Your task to perform on an android device: turn on showing notifications on the lock screen Image 0: 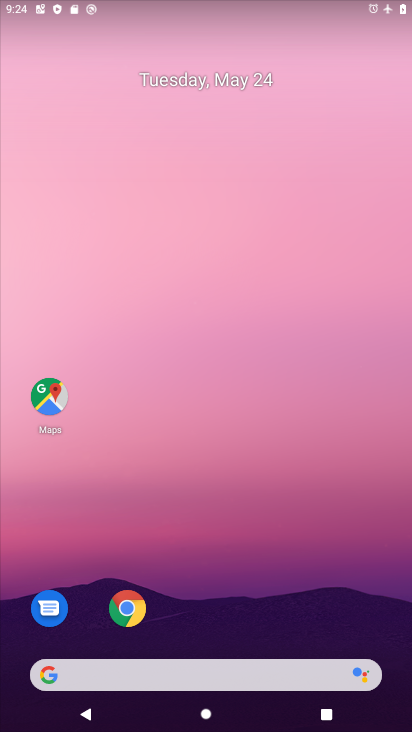
Step 0: drag from (202, 640) to (265, 190)
Your task to perform on an android device: turn on showing notifications on the lock screen Image 1: 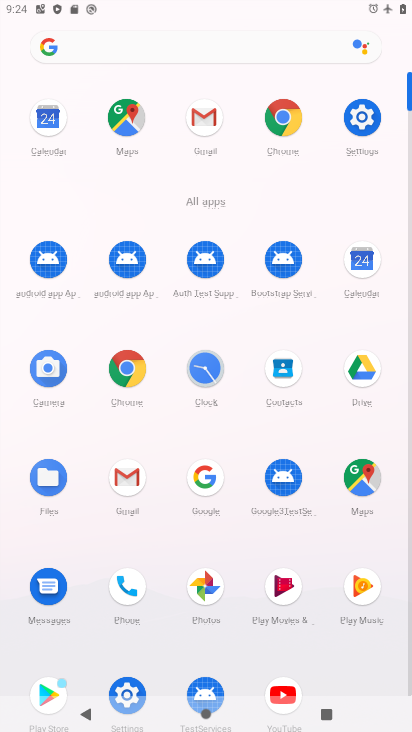
Step 1: click (129, 683)
Your task to perform on an android device: turn on showing notifications on the lock screen Image 2: 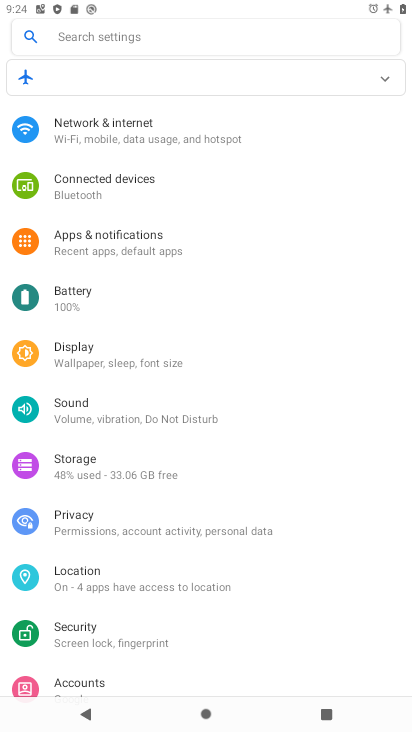
Step 2: click (146, 241)
Your task to perform on an android device: turn on showing notifications on the lock screen Image 3: 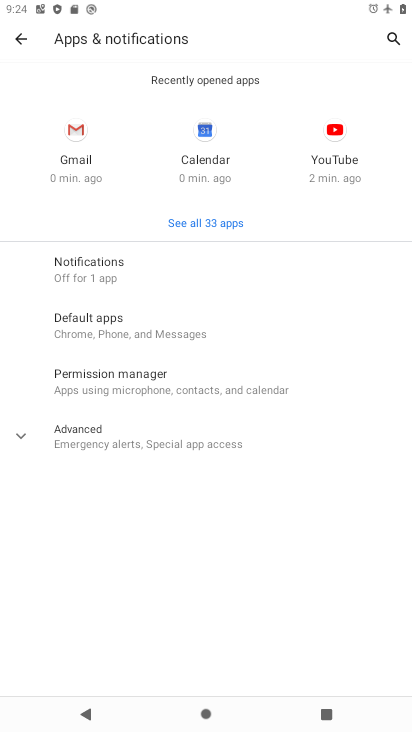
Step 3: click (110, 276)
Your task to perform on an android device: turn on showing notifications on the lock screen Image 4: 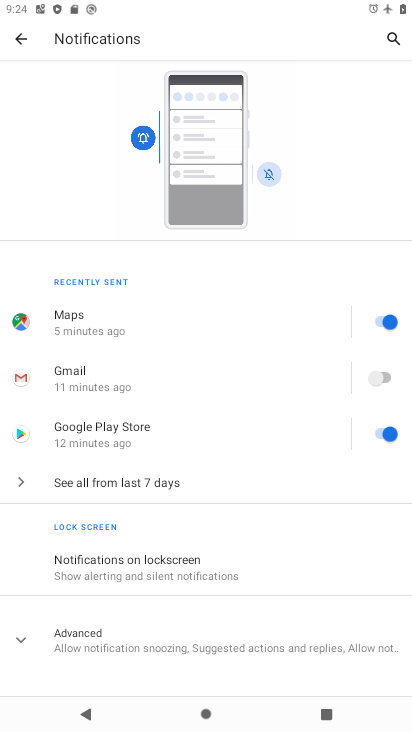
Step 4: click (169, 560)
Your task to perform on an android device: turn on showing notifications on the lock screen Image 5: 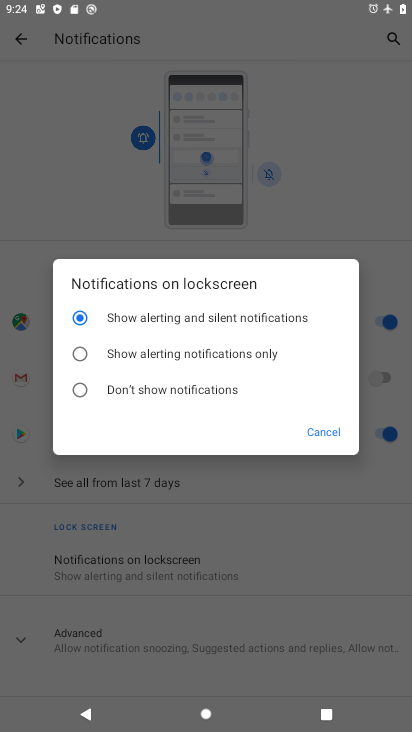
Step 5: task complete